Your task to perform on an android device: Open Google Image 0: 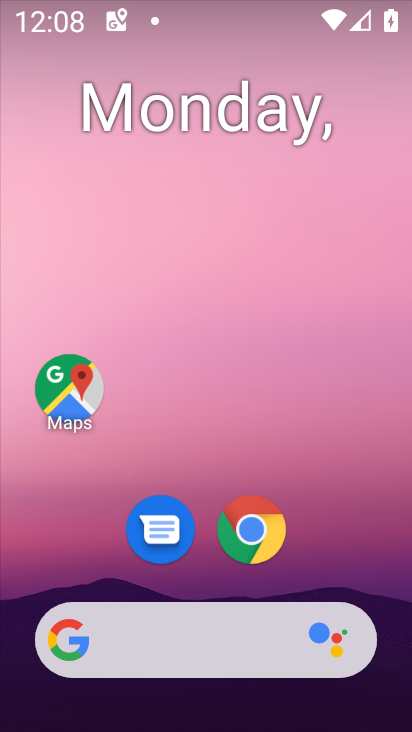
Step 0: drag from (221, 606) to (220, 65)
Your task to perform on an android device: Open Google Image 1: 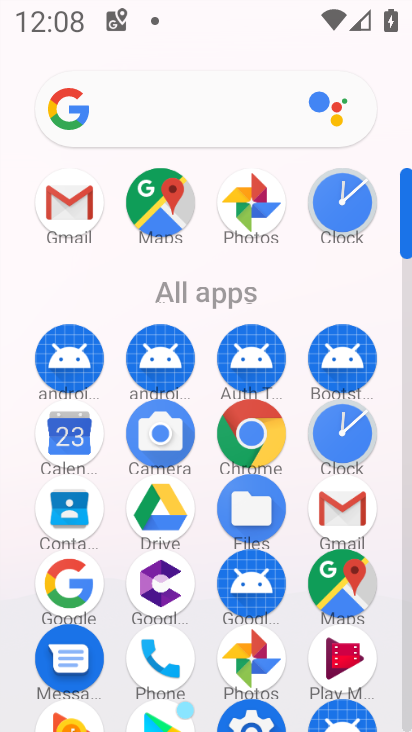
Step 1: click (69, 598)
Your task to perform on an android device: Open Google Image 2: 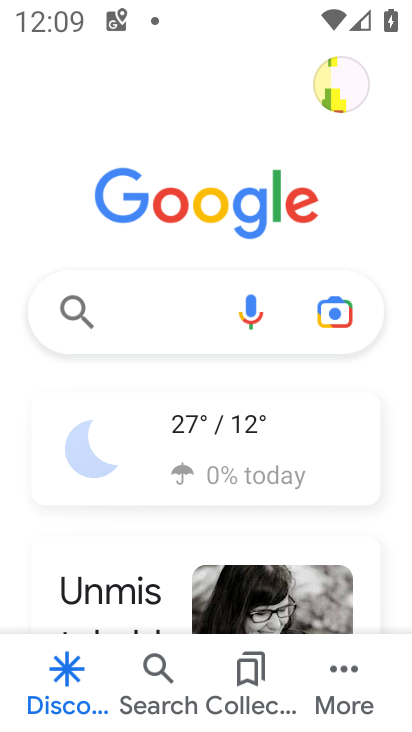
Step 2: task complete